Your task to perform on an android device: Do I have any events tomorrow? Image 0: 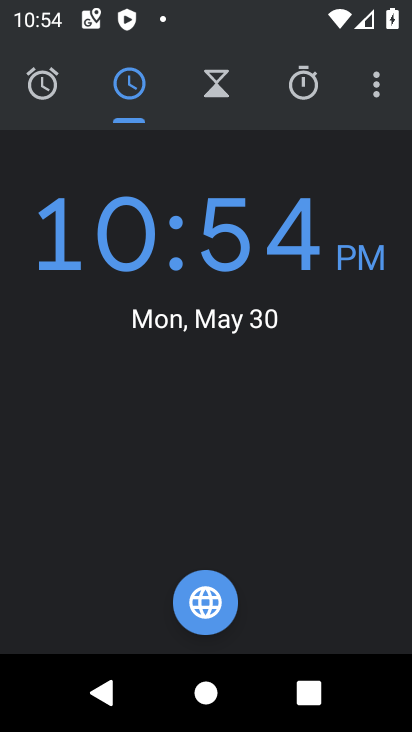
Step 0: press home button
Your task to perform on an android device: Do I have any events tomorrow? Image 1: 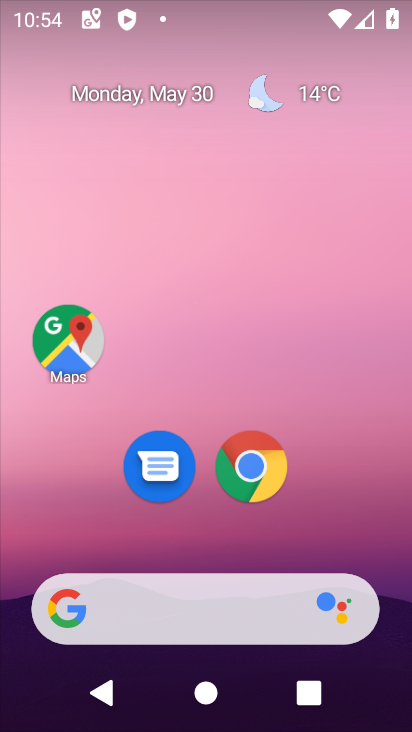
Step 1: drag from (337, 513) to (283, 140)
Your task to perform on an android device: Do I have any events tomorrow? Image 2: 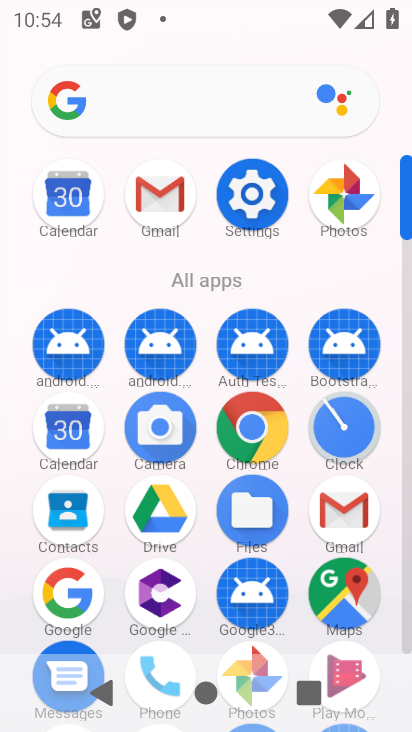
Step 2: click (52, 445)
Your task to perform on an android device: Do I have any events tomorrow? Image 3: 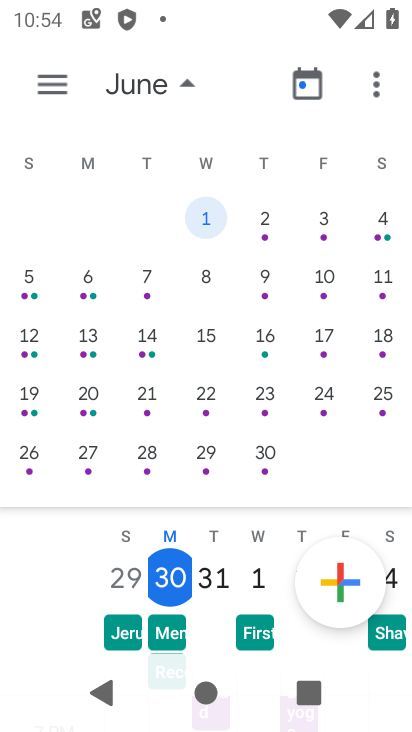
Step 3: click (45, 68)
Your task to perform on an android device: Do I have any events tomorrow? Image 4: 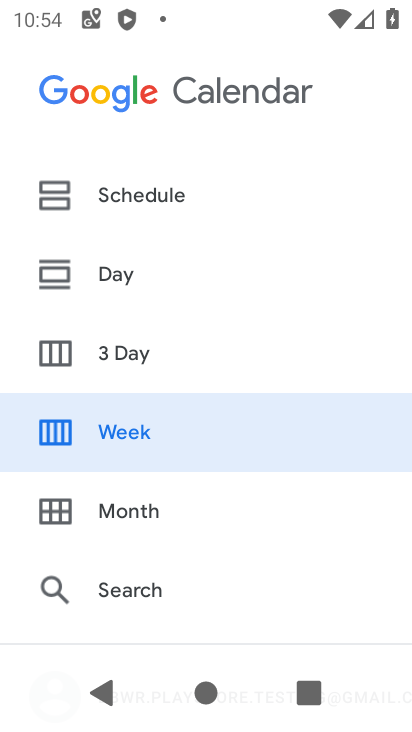
Step 4: click (127, 194)
Your task to perform on an android device: Do I have any events tomorrow? Image 5: 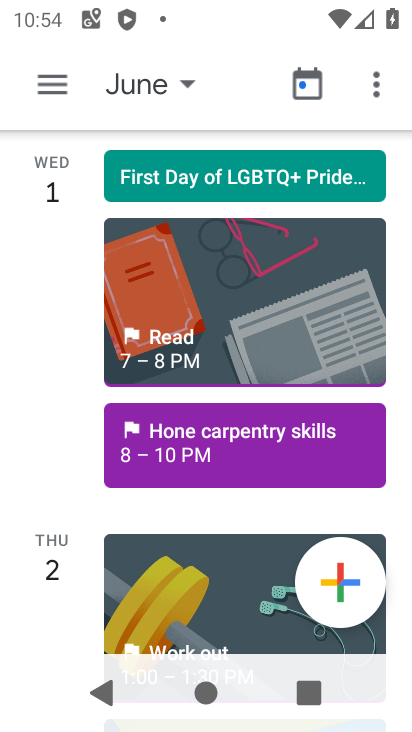
Step 5: task complete